Your task to perform on an android device: Go to notification settings Image 0: 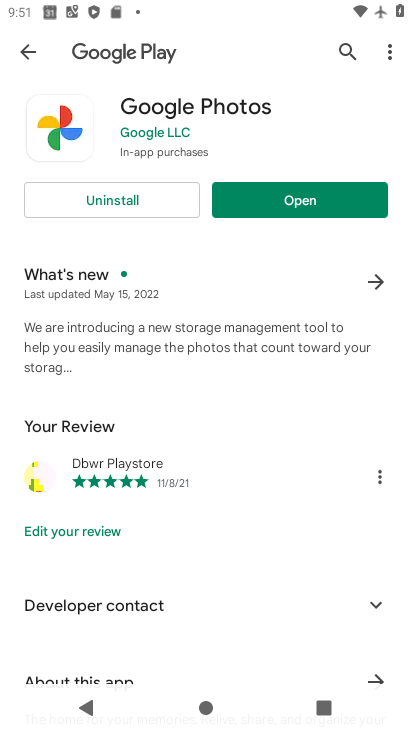
Step 0: press home button
Your task to perform on an android device: Go to notification settings Image 1: 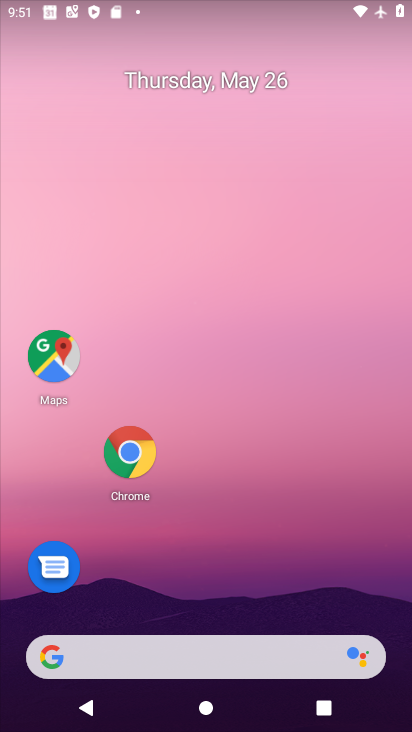
Step 1: drag from (165, 657) to (296, 108)
Your task to perform on an android device: Go to notification settings Image 2: 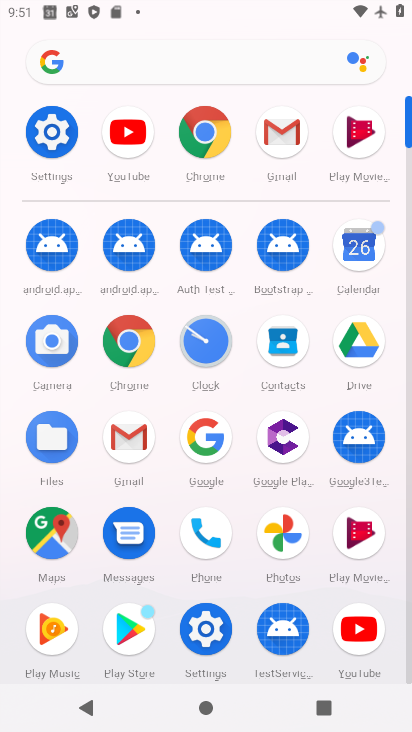
Step 2: click (50, 130)
Your task to perform on an android device: Go to notification settings Image 3: 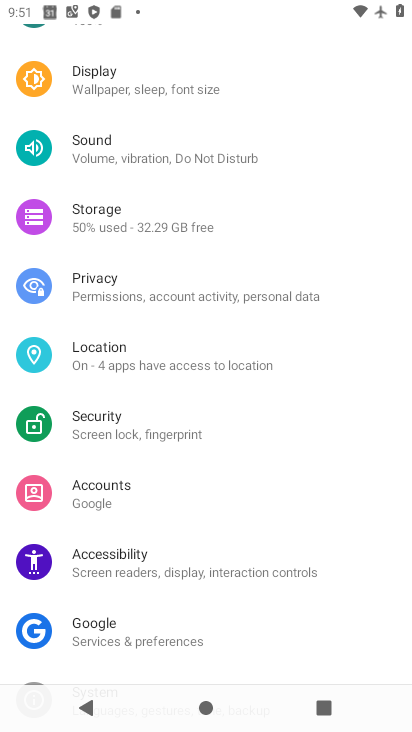
Step 3: drag from (296, 99) to (247, 490)
Your task to perform on an android device: Go to notification settings Image 4: 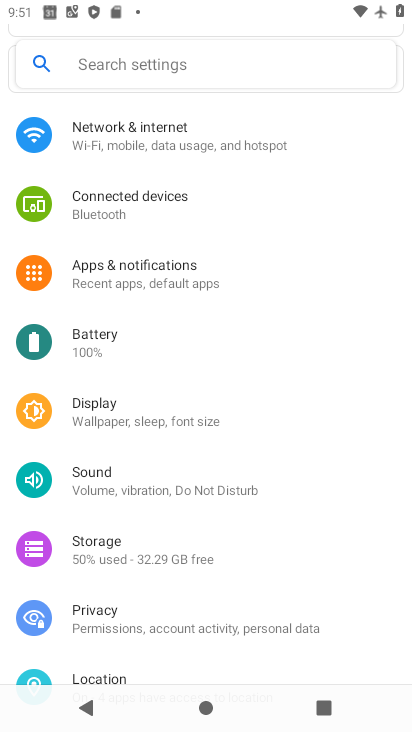
Step 4: click (170, 278)
Your task to perform on an android device: Go to notification settings Image 5: 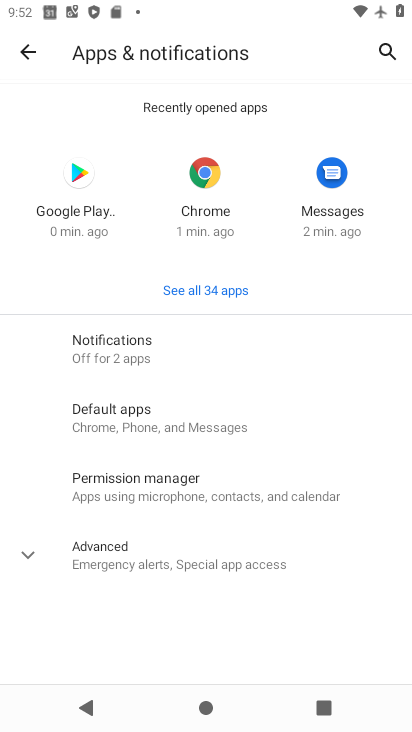
Step 5: task complete